Your task to perform on an android device: Set the phone to "Do not disturb". Image 0: 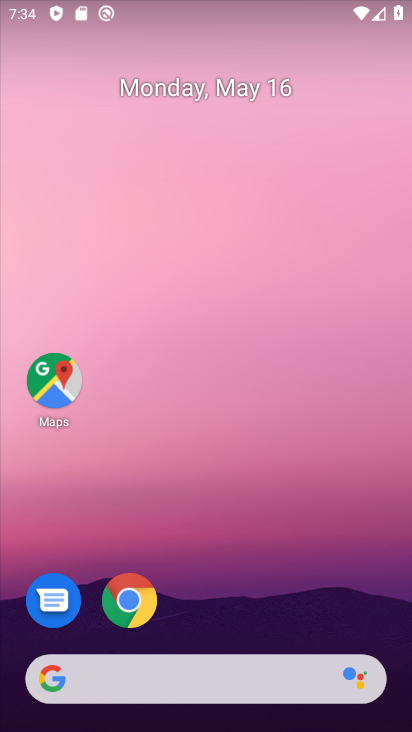
Step 0: drag from (147, 682) to (281, 208)
Your task to perform on an android device: Set the phone to "Do not disturb". Image 1: 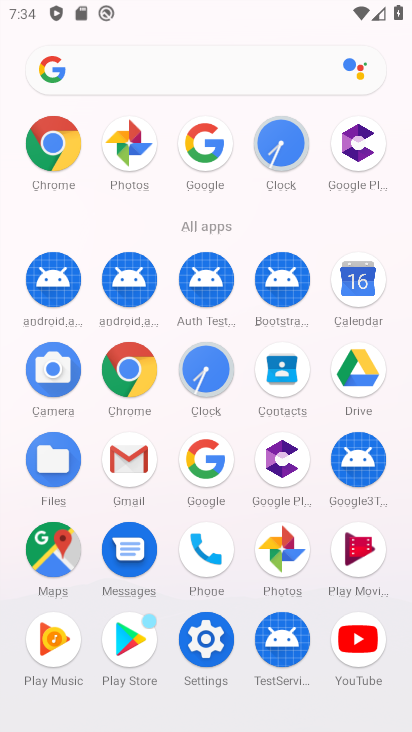
Step 1: click (206, 651)
Your task to perform on an android device: Set the phone to "Do not disturb". Image 2: 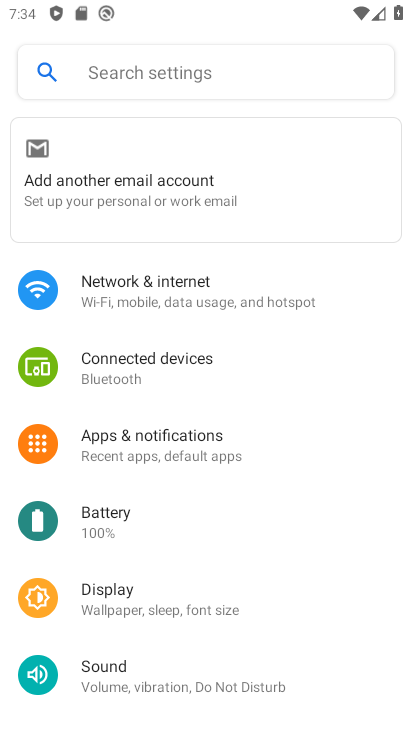
Step 2: click (168, 673)
Your task to perform on an android device: Set the phone to "Do not disturb". Image 3: 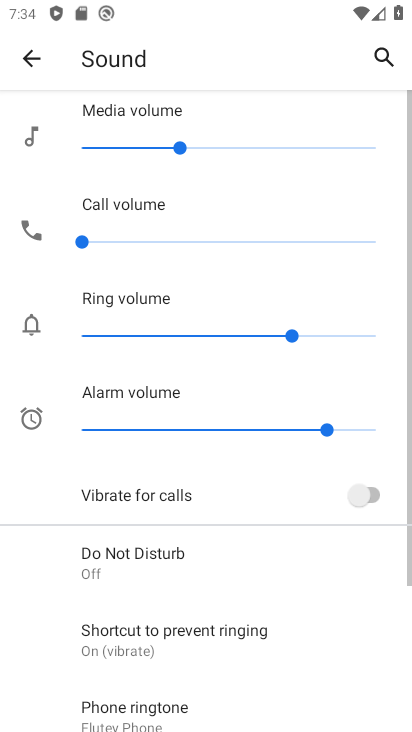
Step 3: click (140, 563)
Your task to perform on an android device: Set the phone to "Do not disturb". Image 4: 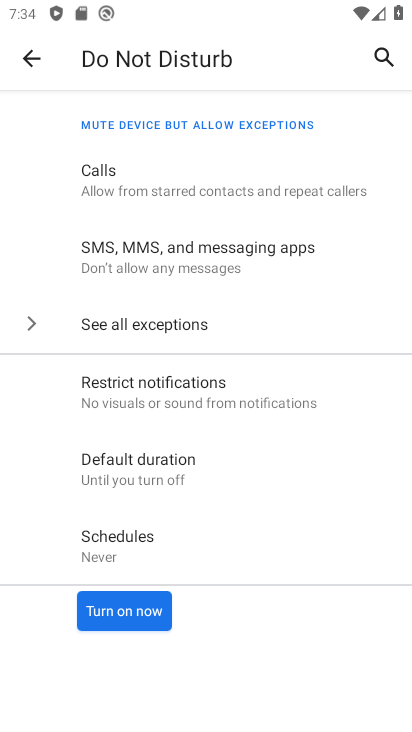
Step 4: click (139, 611)
Your task to perform on an android device: Set the phone to "Do not disturb". Image 5: 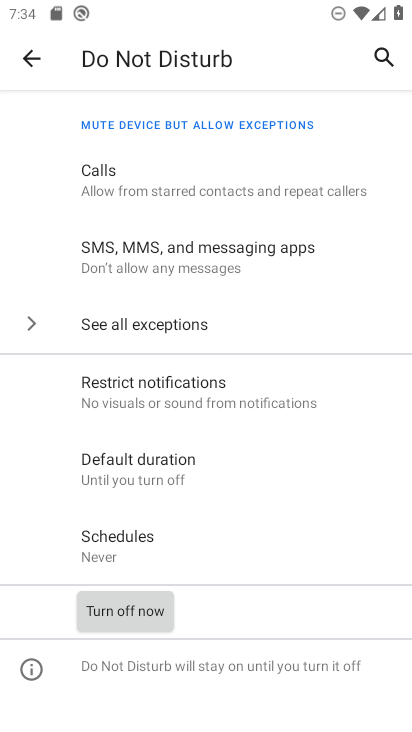
Step 5: task complete